Your task to perform on an android device: check the backup settings in the google photos Image 0: 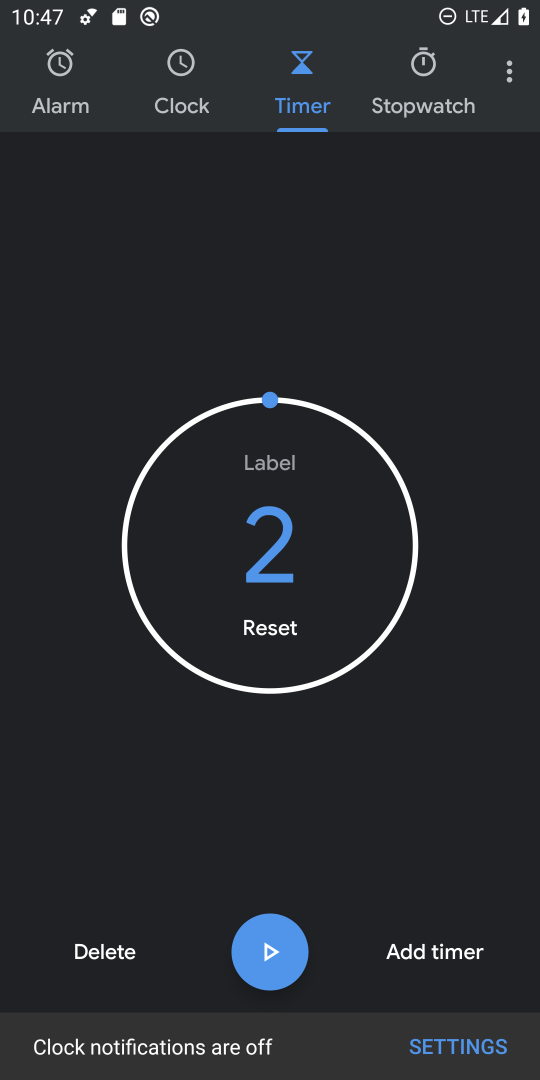
Step 0: press home button
Your task to perform on an android device: check the backup settings in the google photos Image 1: 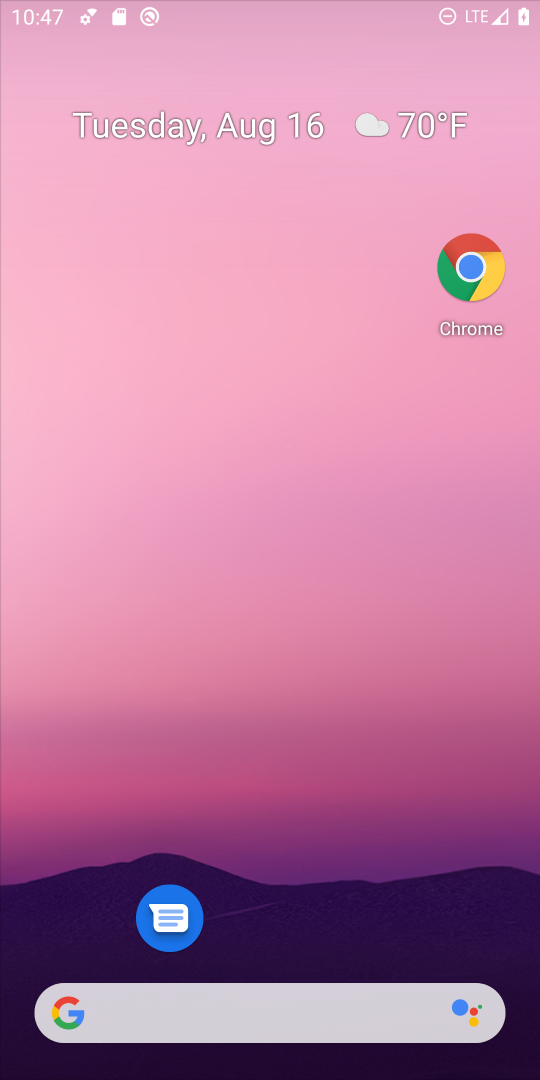
Step 1: drag from (290, 954) to (185, 384)
Your task to perform on an android device: check the backup settings in the google photos Image 2: 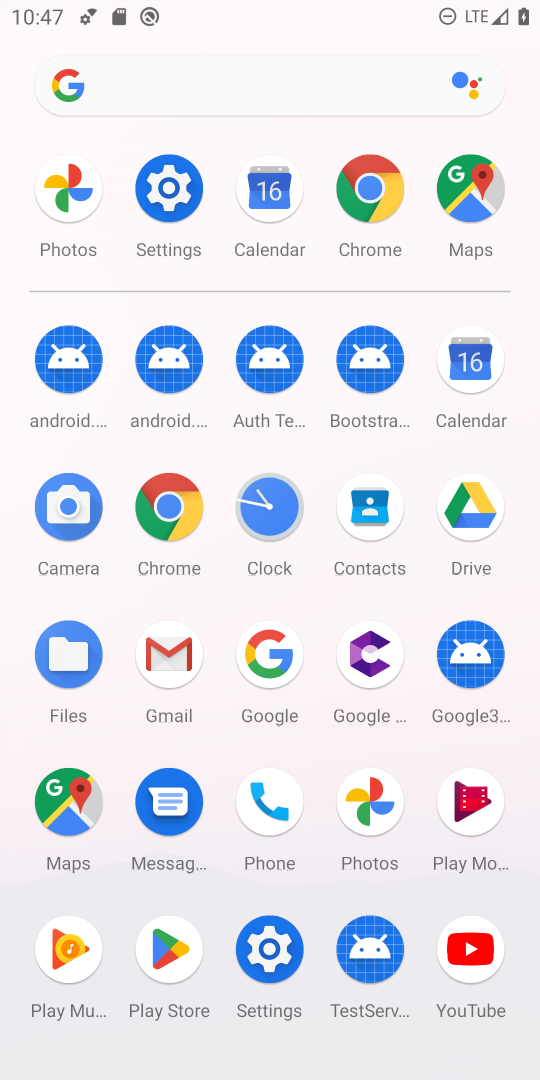
Step 2: click (370, 794)
Your task to perform on an android device: check the backup settings in the google photos Image 3: 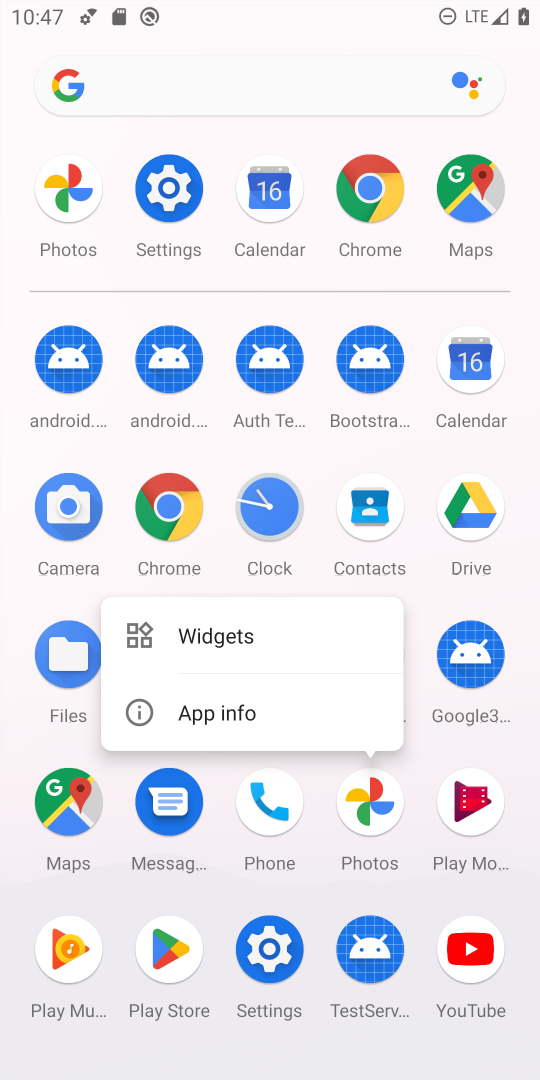
Step 3: click (366, 804)
Your task to perform on an android device: check the backup settings in the google photos Image 4: 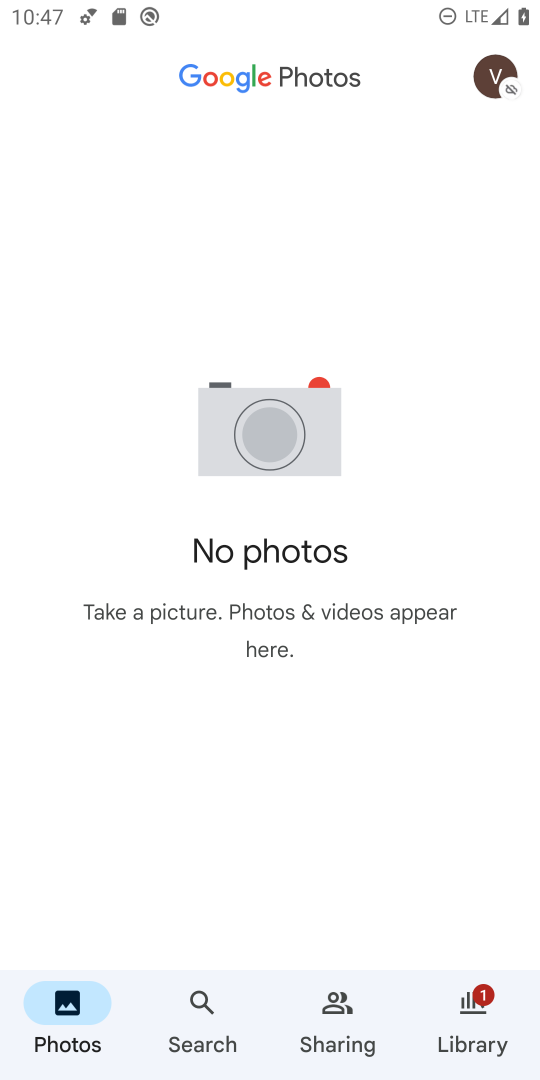
Step 4: click (496, 82)
Your task to perform on an android device: check the backup settings in the google photos Image 5: 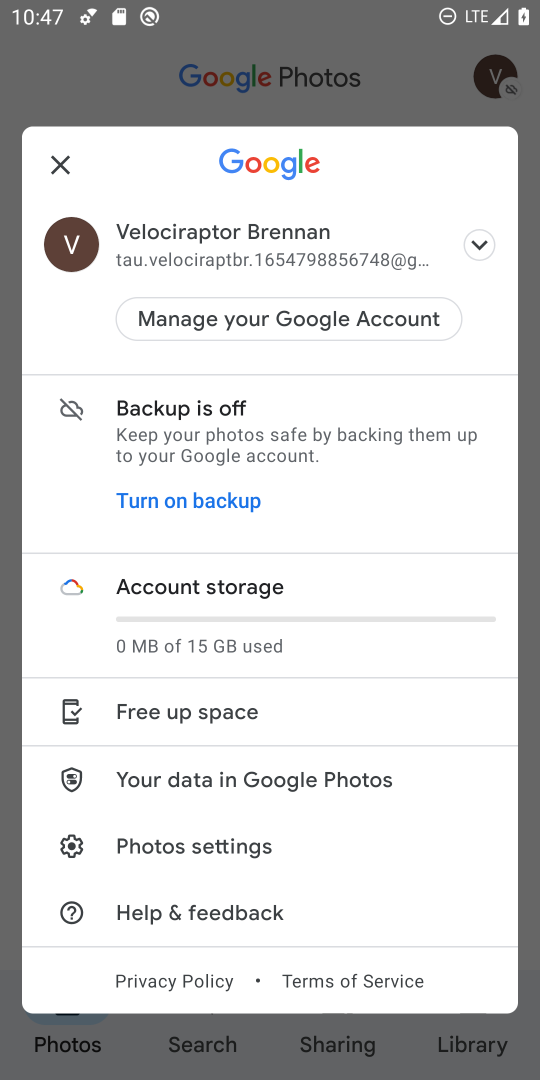
Step 5: click (212, 839)
Your task to perform on an android device: check the backup settings in the google photos Image 6: 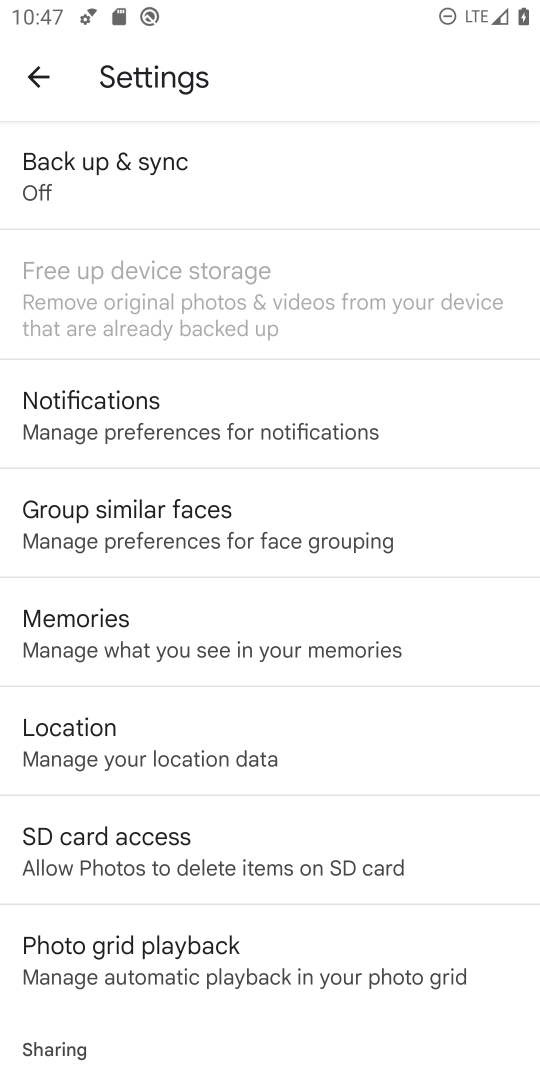
Step 6: click (147, 187)
Your task to perform on an android device: check the backup settings in the google photos Image 7: 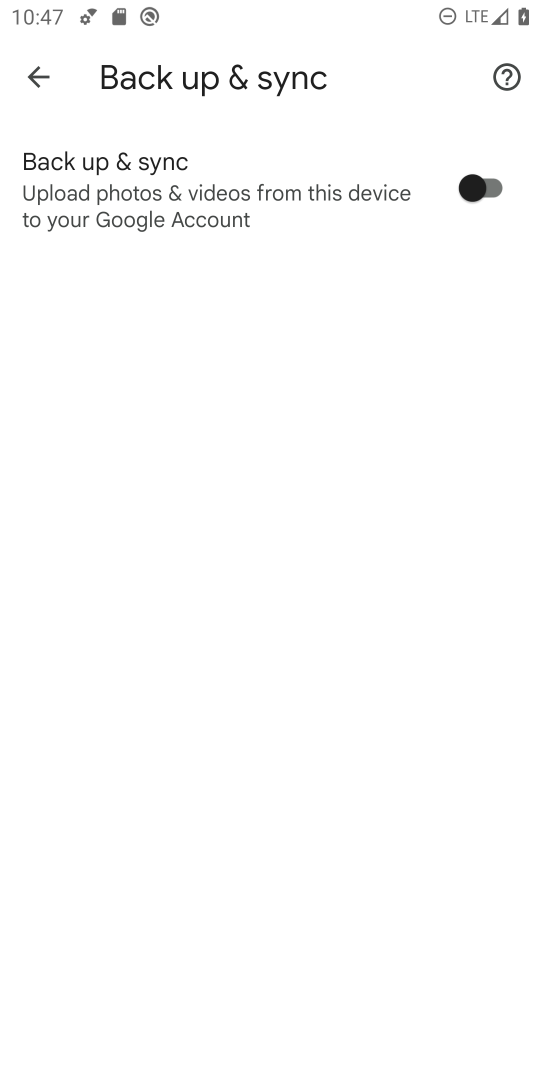
Step 7: click (490, 184)
Your task to perform on an android device: check the backup settings in the google photos Image 8: 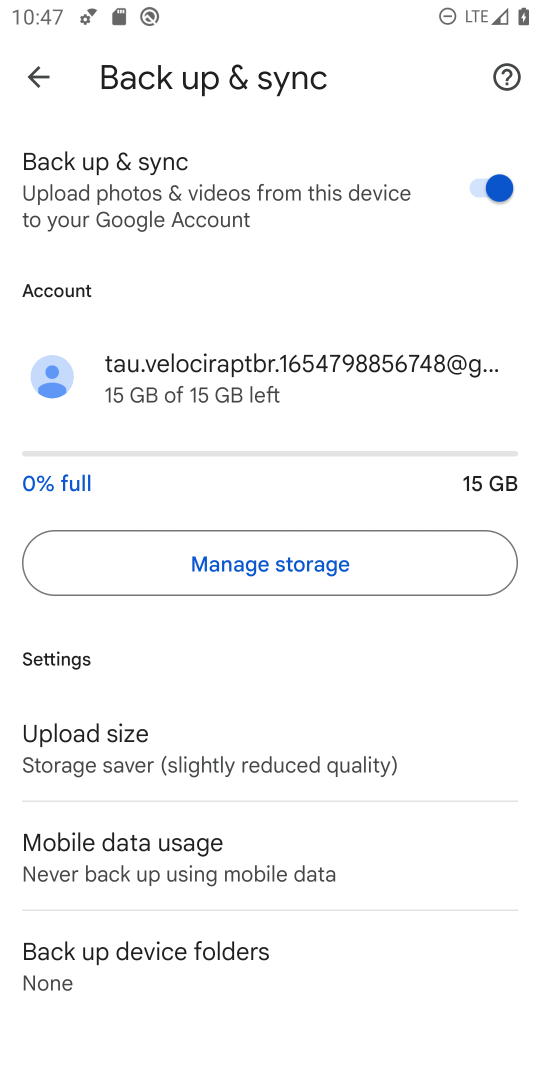
Step 8: task complete